Your task to perform on an android device: add a contact in the contacts app Image 0: 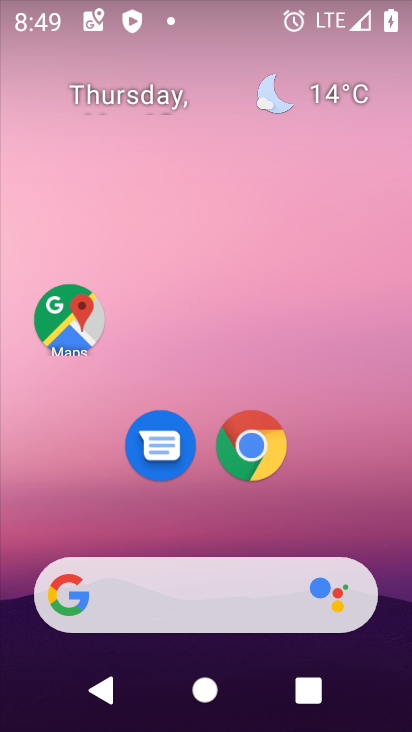
Step 0: drag from (223, 728) to (223, 43)
Your task to perform on an android device: add a contact in the contacts app Image 1: 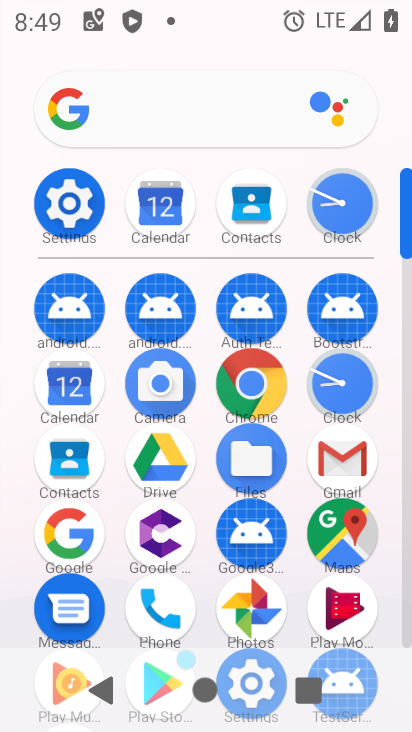
Step 1: click (57, 469)
Your task to perform on an android device: add a contact in the contacts app Image 2: 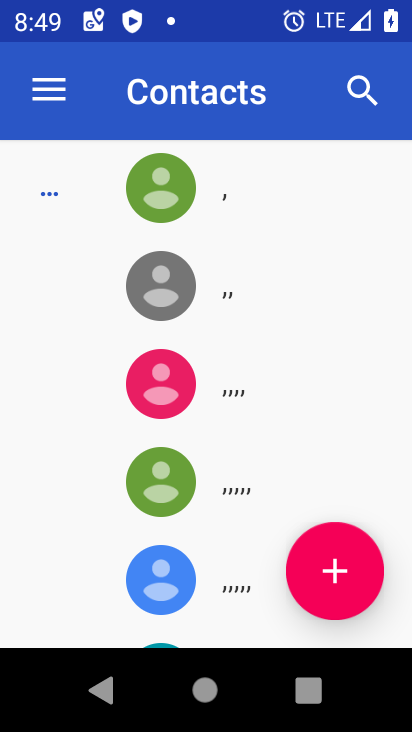
Step 2: click (336, 569)
Your task to perform on an android device: add a contact in the contacts app Image 3: 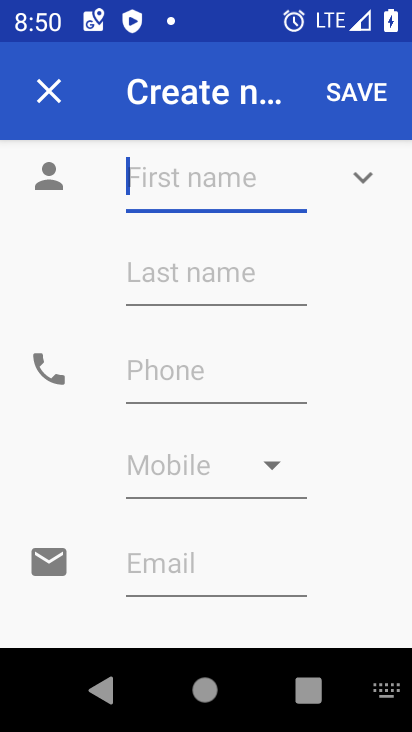
Step 3: type "chig chow"
Your task to perform on an android device: add a contact in the contacts app Image 4: 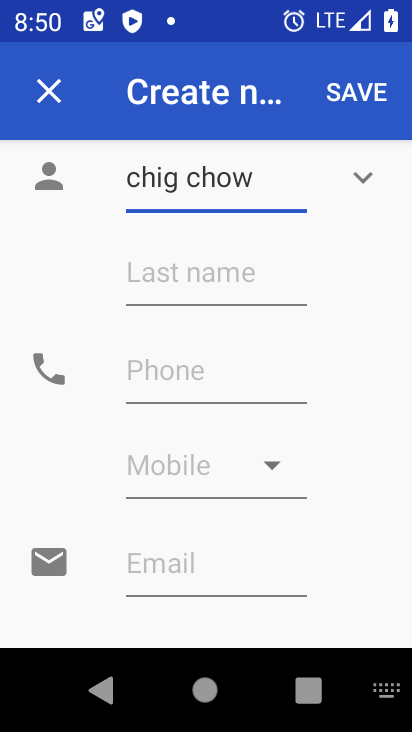
Step 4: click (186, 374)
Your task to perform on an android device: add a contact in the contacts app Image 5: 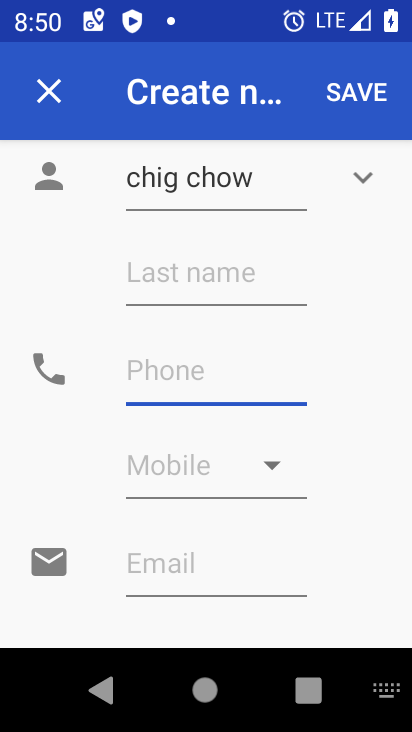
Step 5: type "98765432"
Your task to perform on an android device: add a contact in the contacts app Image 6: 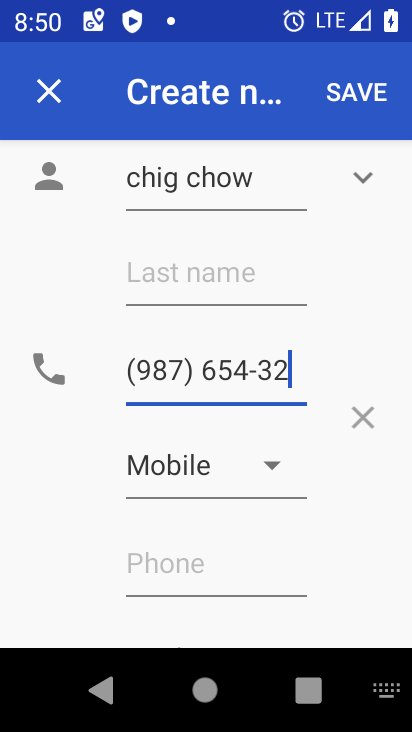
Step 6: click (356, 93)
Your task to perform on an android device: add a contact in the contacts app Image 7: 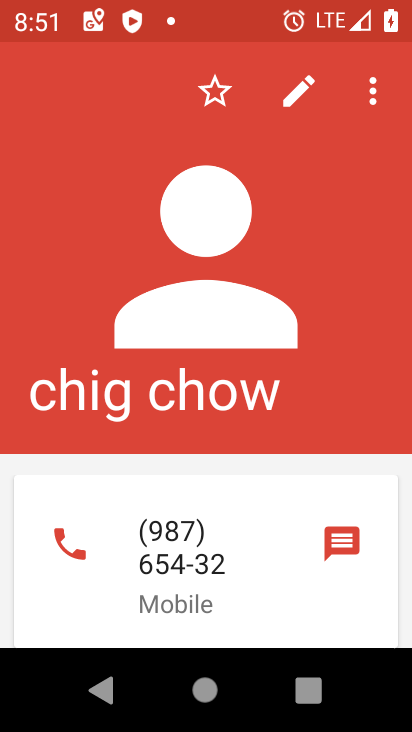
Step 7: task complete